Your task to perform on an android device: turn off priority inbox in the gmail app Image 0: 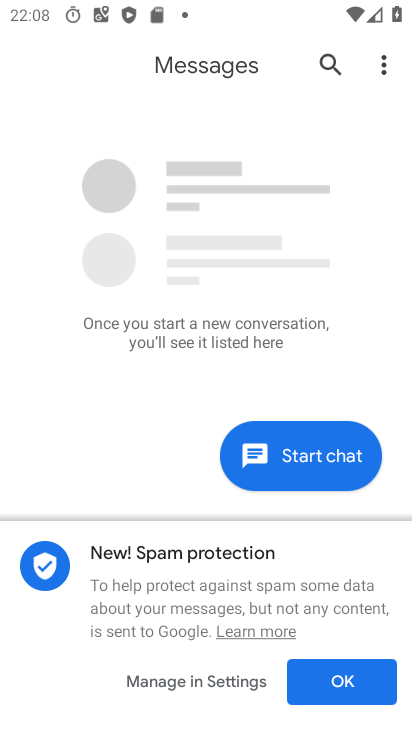
Step 0: press home button
Your task to perform on an android device: turn off priority inbox in the gmail app Image 1: 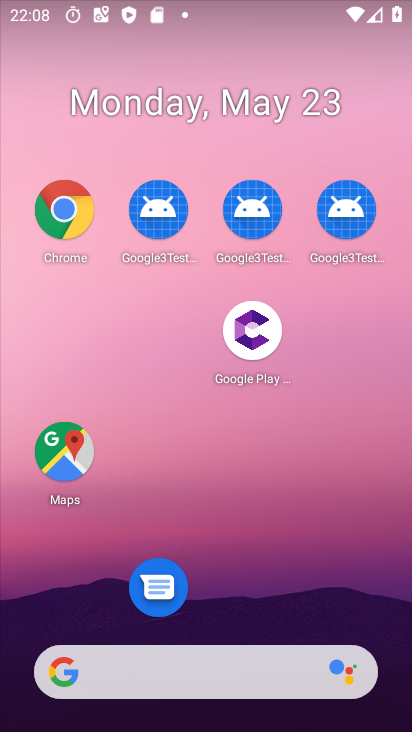
Step 1: drag from (264, 623) to (255, 36)
Your task to perform on an android device: turn off priority inbox in the gmail app Image 2: 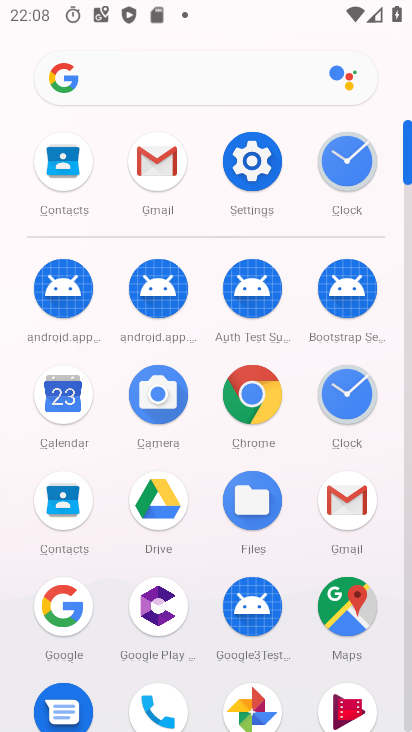
Step 2: click (359, 496)
Your task to perform on an android device: turn off priority inbox in the gmail app Image 3: 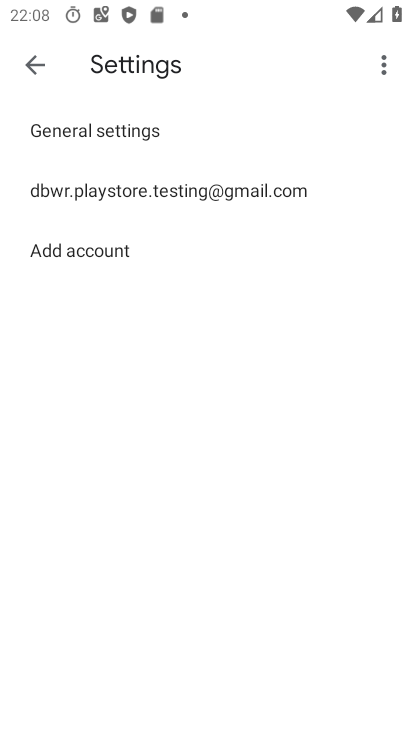
Step 3: click (181, 190)
Your task to perform on an android device: turn off priority inbox in the gmail app Image 4: 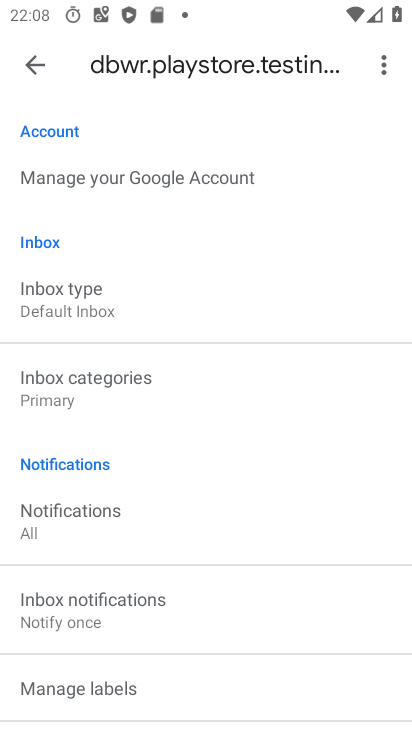
Step 4: click (111, 320)
Your task to perform on an android device: turn off priority inbox in the gmail app Image 5: 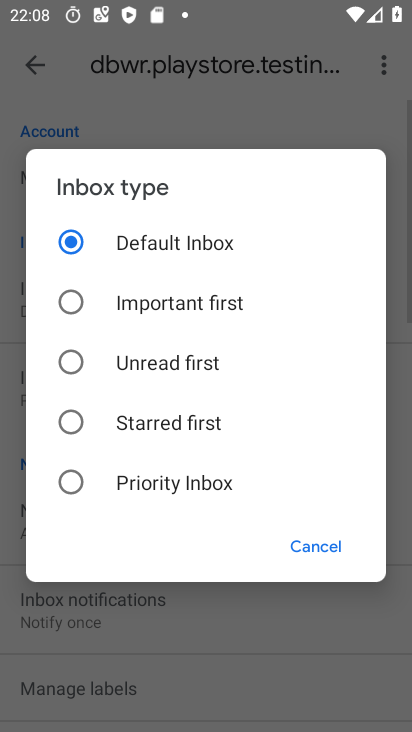
Step 5: click (216, 240)
Your task to perform on an android device: turn off priority inbox in the gmail app Image 6: 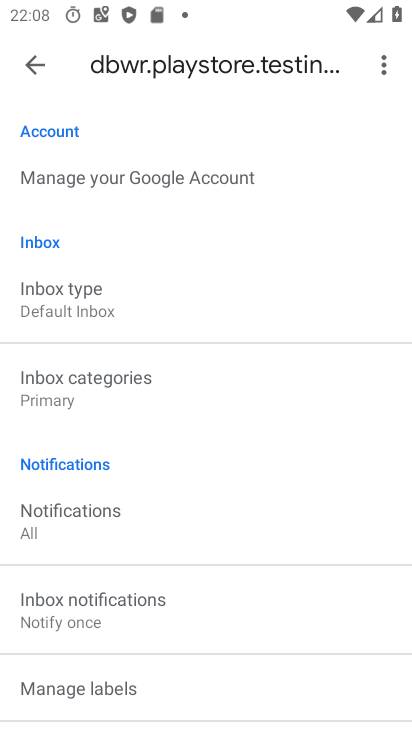
Step 6: task complete